Your task to perform on an android device: Go to Google Image 0: 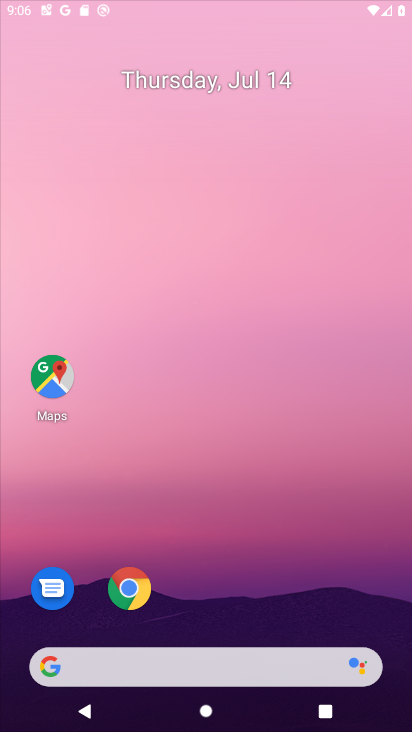
Step 0: click (233, 228)
Your task to perform on an android device: Go to Google Image 1: 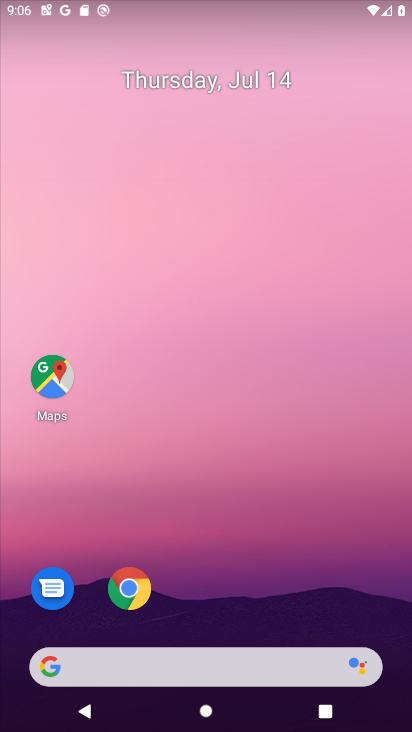
Step 1: drag from (298, 513) to (255, 187)
Your task to perform on an android device: Go to Google Image 2: 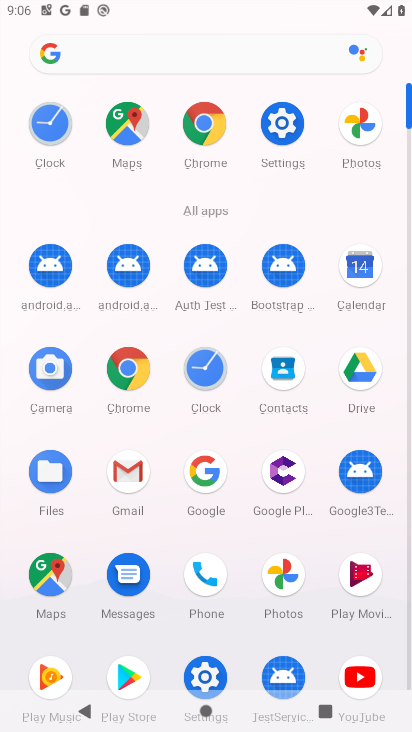
Step 2: click (209, 478)
Your task to perform on an android device: Go to Google Image 3: 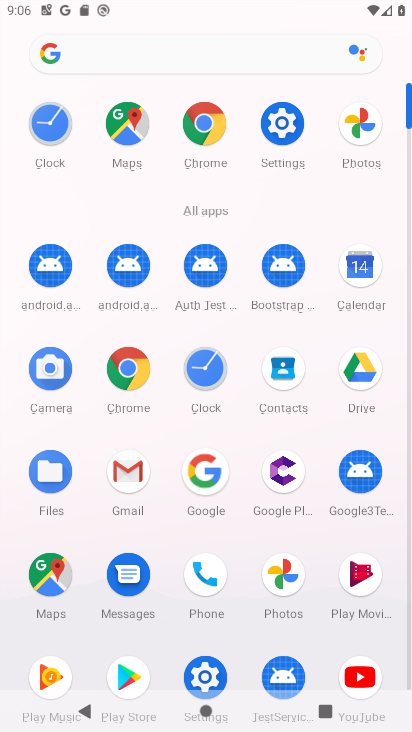
Step 3: click (207, 477)
Your task to perform on an android device: Go to Google Image 4: 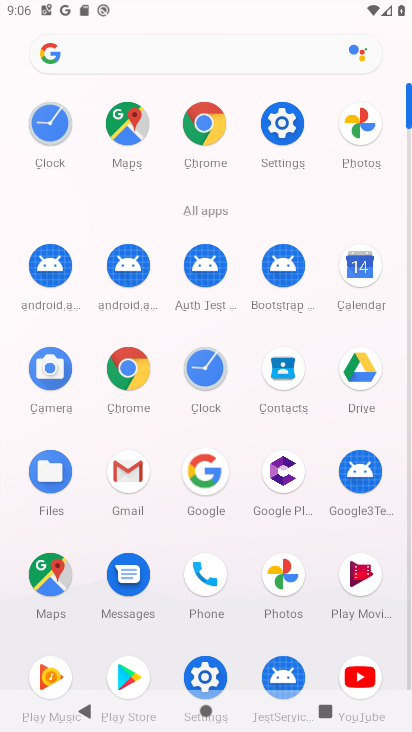
Step 4: click (208, 481)
Your task to perform on an android device: Go to Google Image 5: 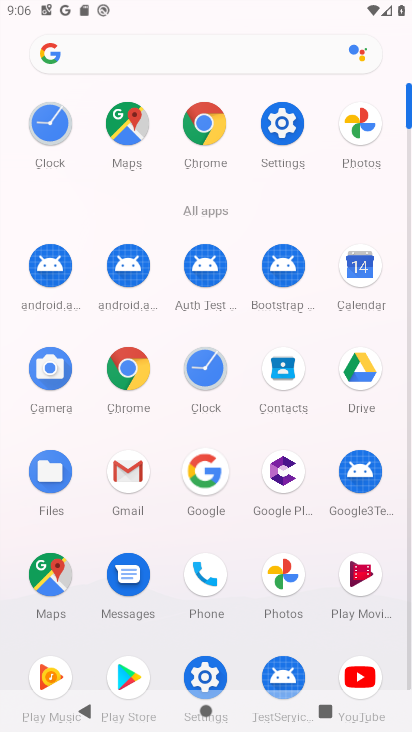
Step 5: click (207, 481)
Your task to perform on an android device: Go to Google Image 6: 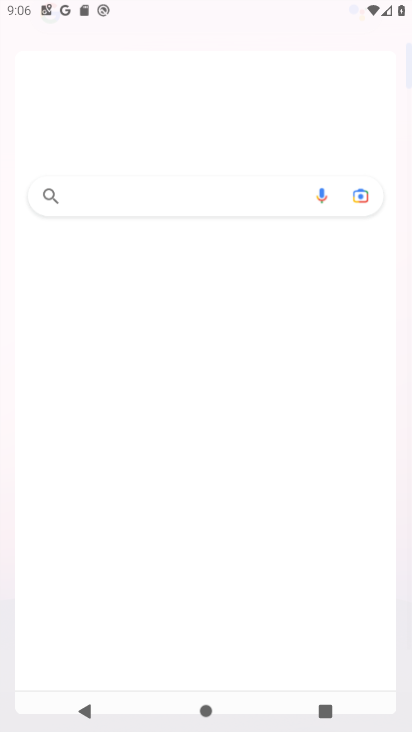
Step 6: click (204, 471)
Your task to perform on an android device: Go to Google Image 7: 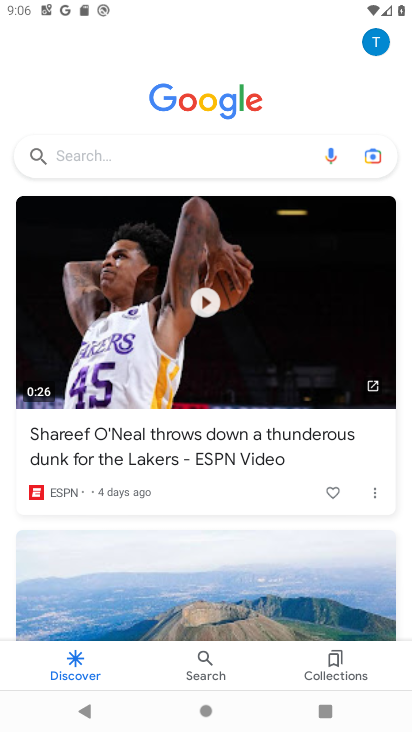
Step 7: task complete